Your task to perform on an android device: Google the capital of Colombia Image 0: 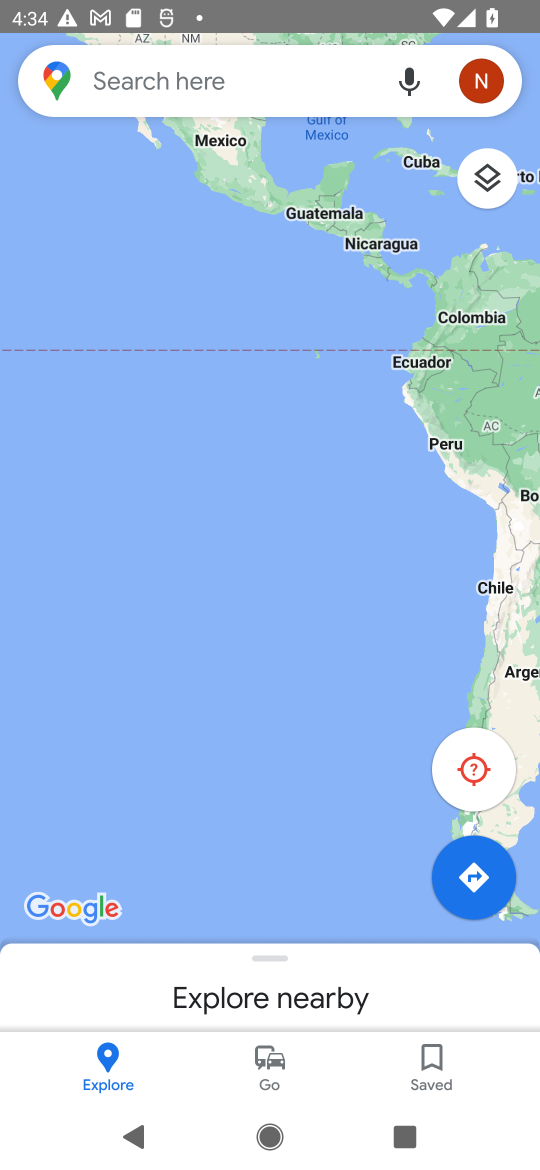
Step 0: press home button
Your task to perform on an android device: Google the capital of Colombia Image 1: 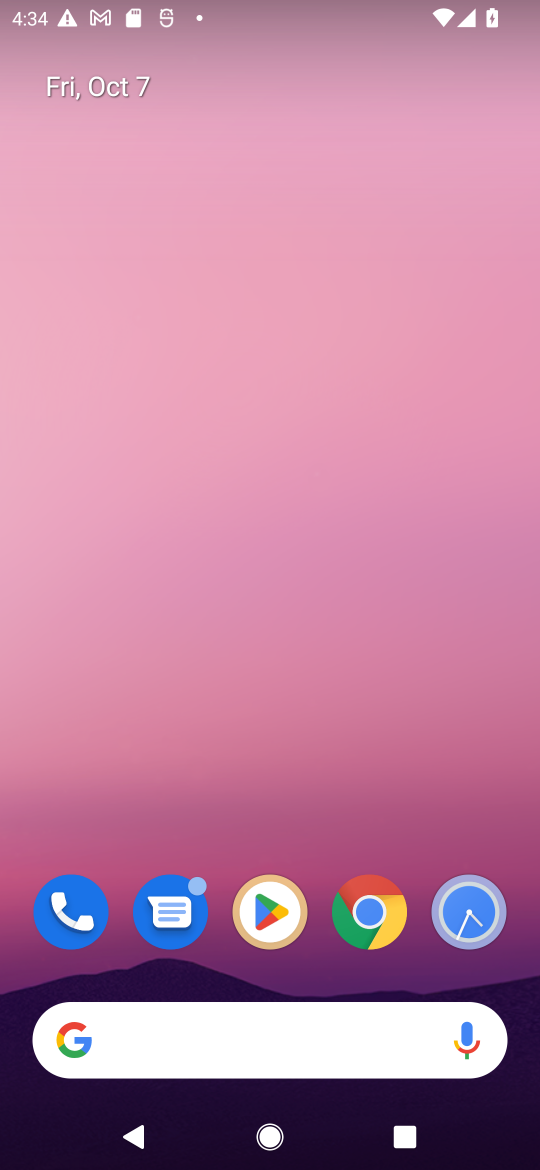
Step 1: drag from (297, 947) to (354, 367)
Your task to perform on an android device: Google the capital of Colombia Image 2: 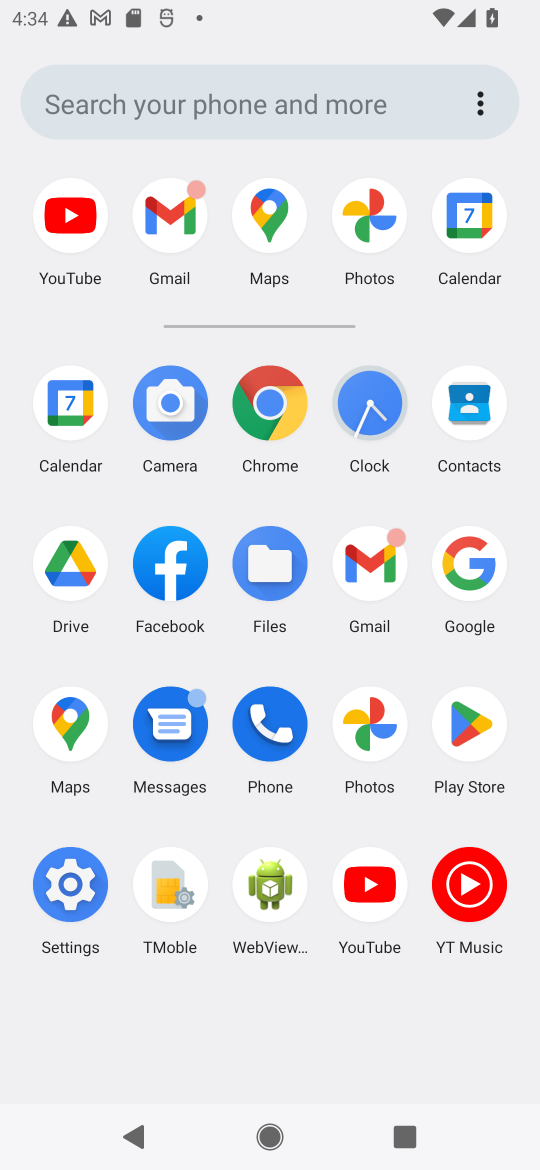
Step 2: click (477, 548)
Your task to perform on an android device: Google the capital of Colombia Image 3: 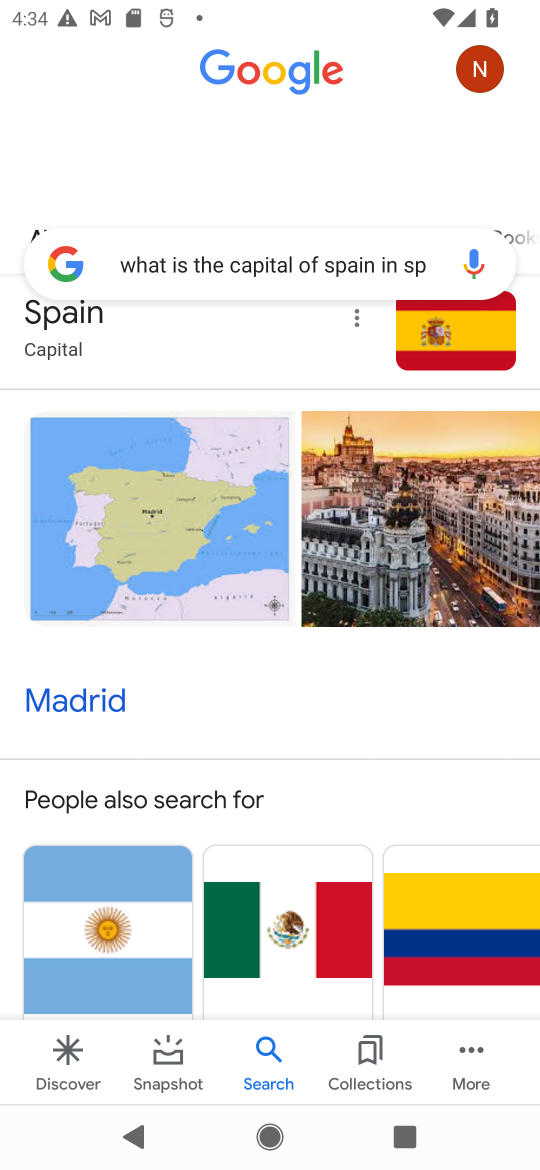
Step 3: click (281, 252)
Your task to perform on an android device: Google the capital of Colombia Image 4: 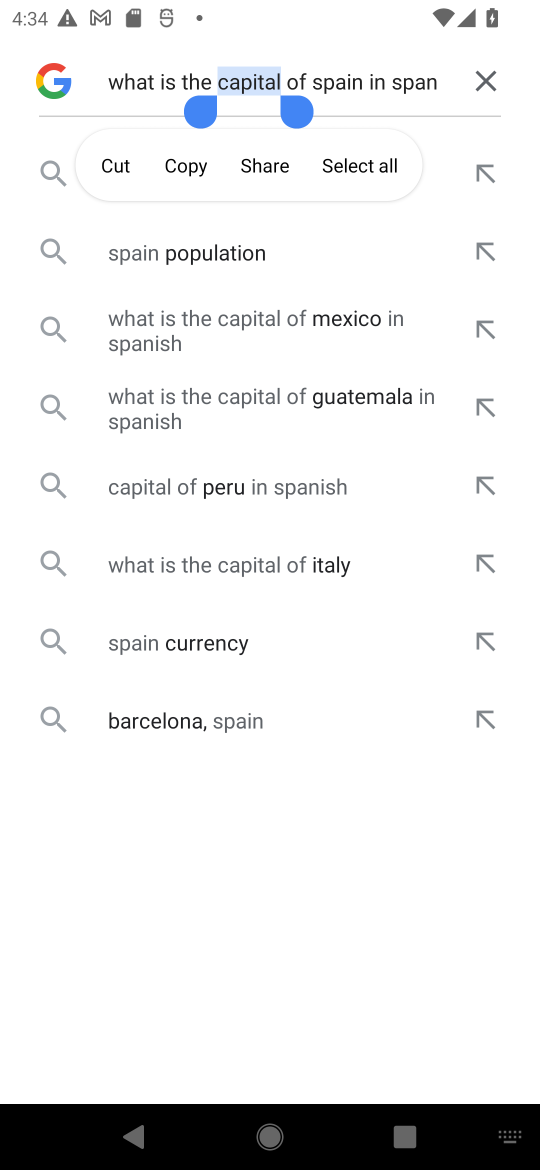
Step 4: click (477, 79)
Your task to perform on an android device: Google the capital of Colombia Image 5: 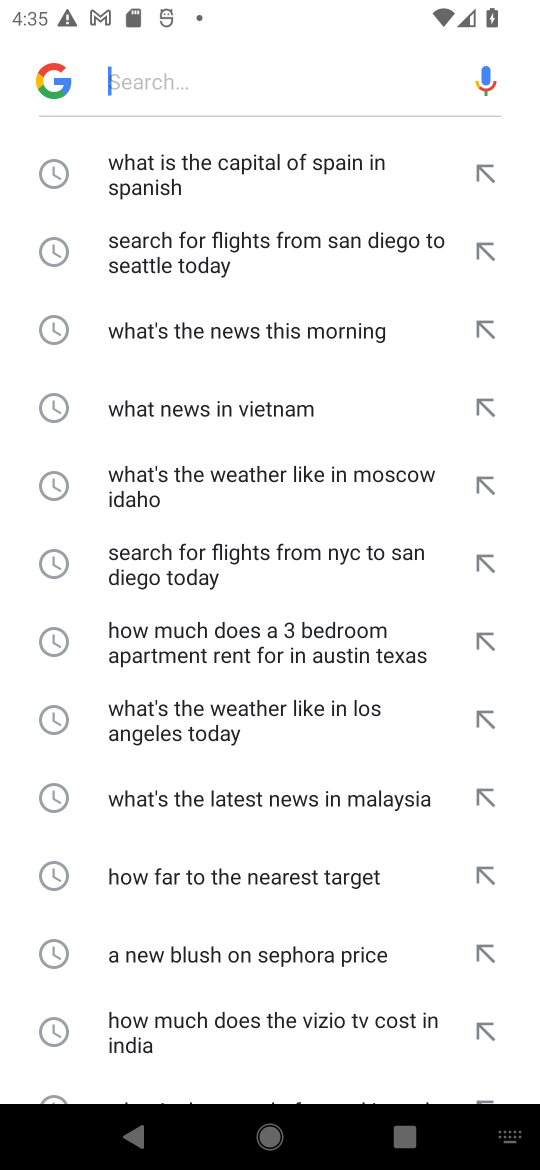
Step 5: click (243, 102)
Your task to perform on an android device: Google the capital of Colombia Image 6: 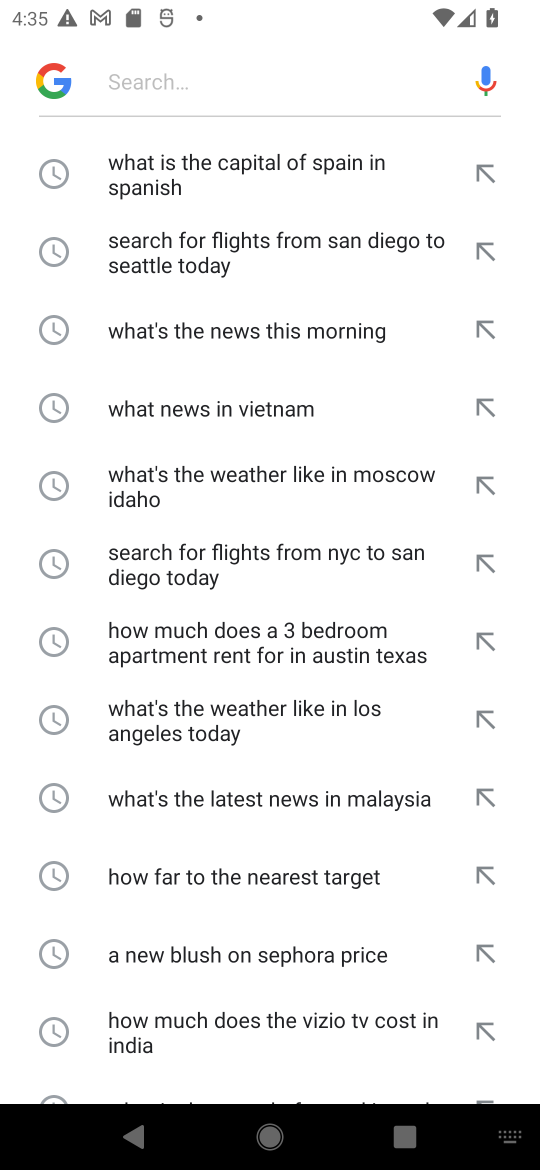
Step 6: click (243, 96)
Your task to perform on an android device: Google the capital of Colombia Image 7: 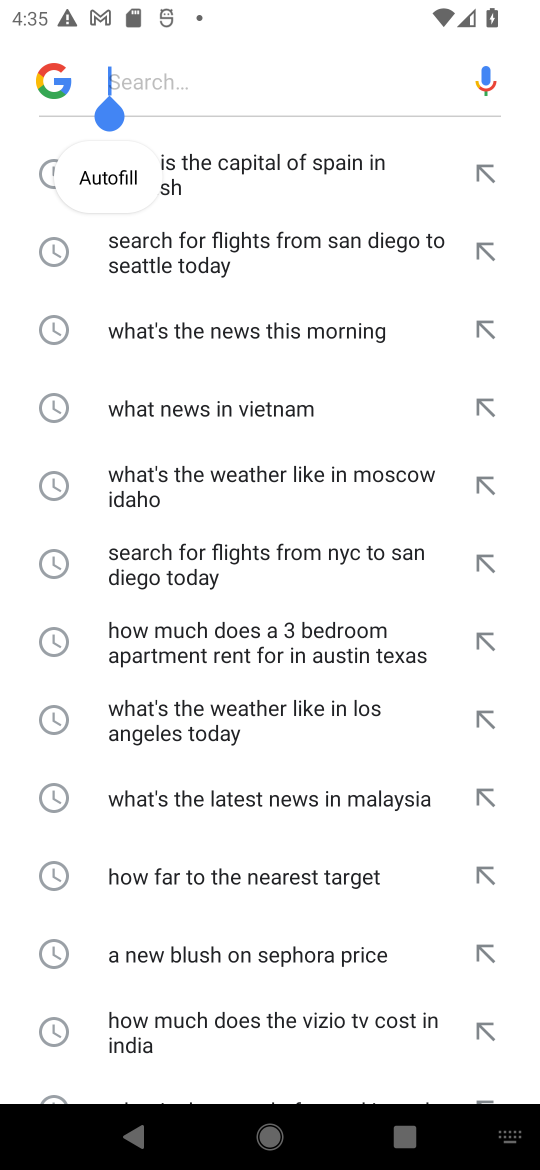
Step 7: type "Google the capital of Colombia "
Your task to perform on an android device: Google the capital of Colombia Image 8: 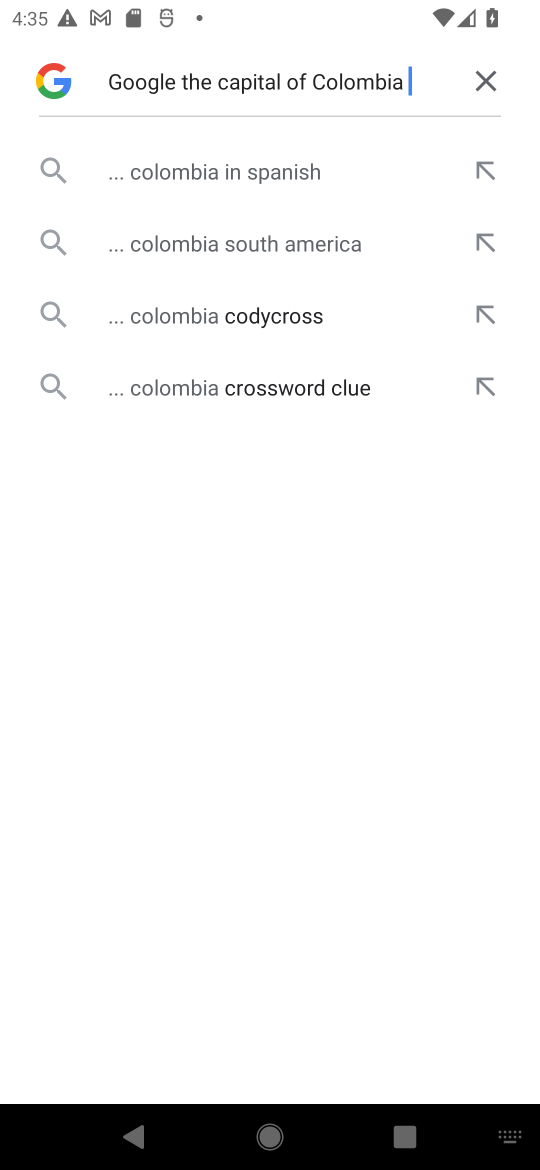
Step 8: click (223, 176)
Your task to perform on an android device: Google the capital of Colombia Image 9: 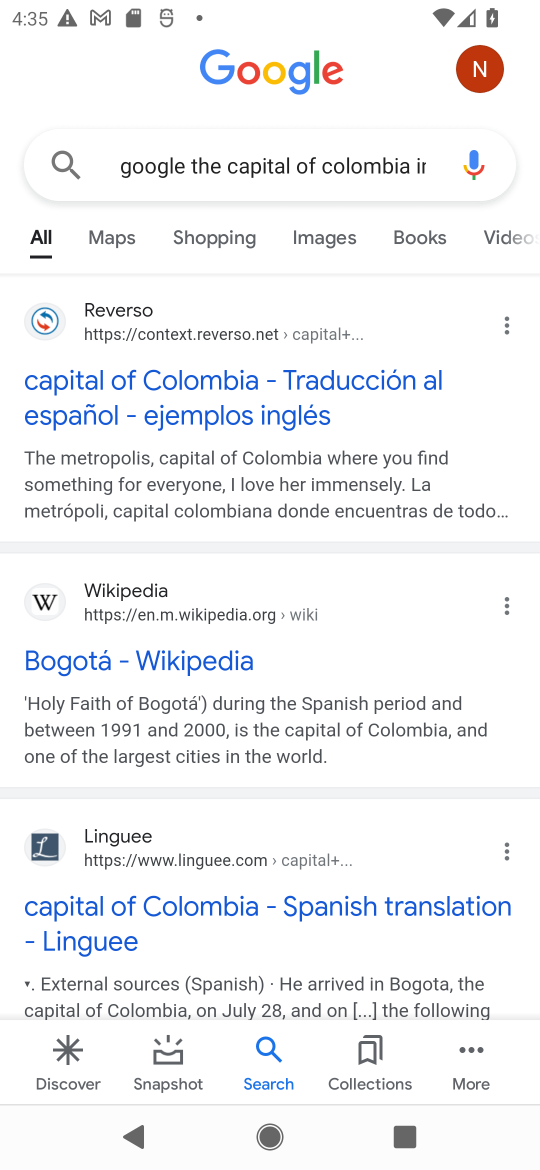
Step 9: click (217, 400)
Your task to perform on an android device: Google the capital of Colombia Image 10: 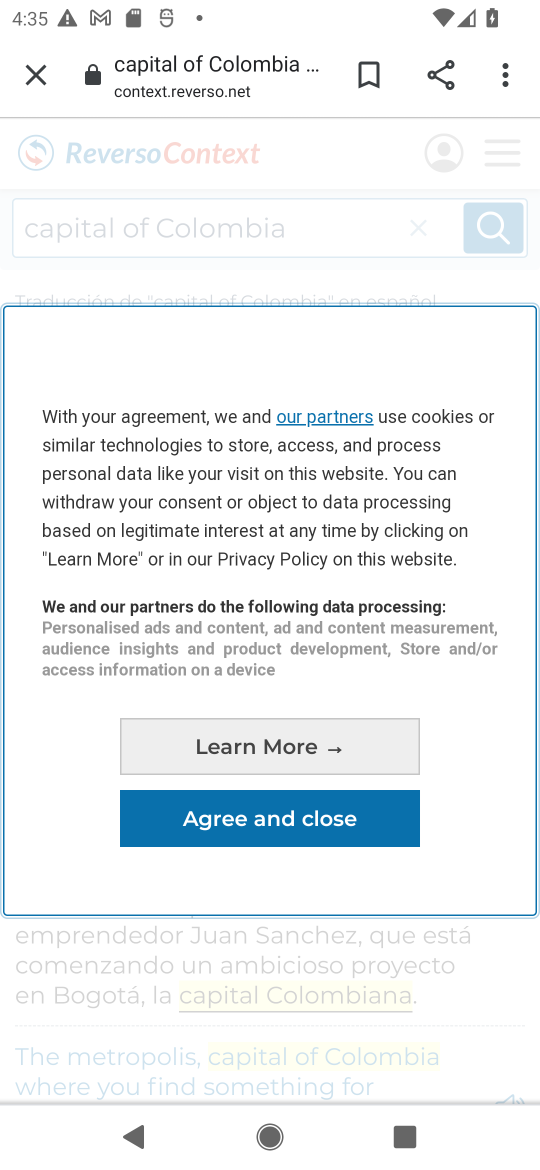
Step 10: click (267, 820)
Your task to perform on an android device: Google the capital of Colombia Image 11: 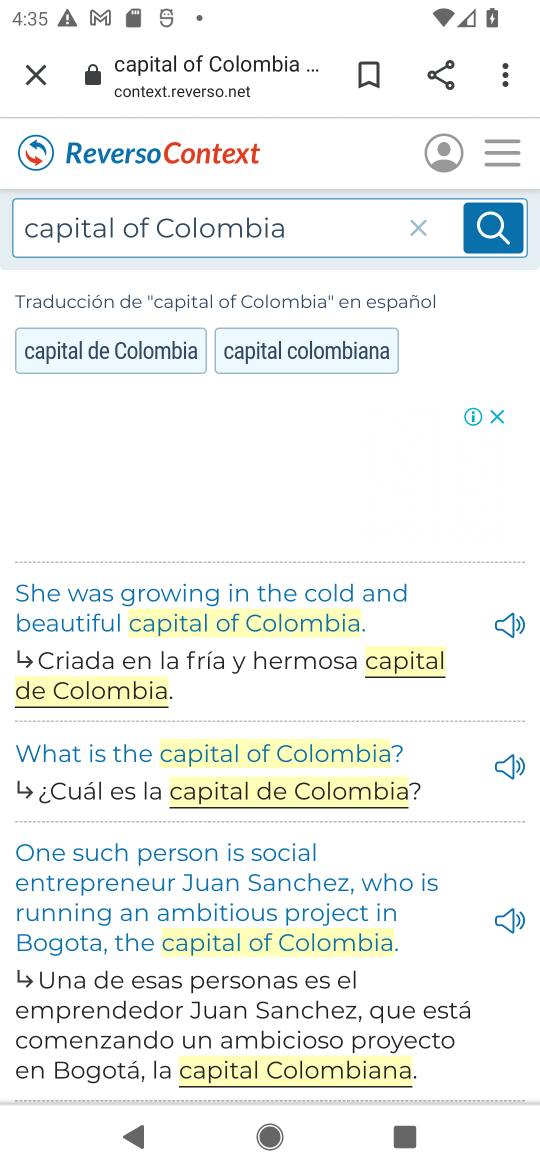
Step 11: task complete